Your task to perform on an android device: What is the recent news? Image 0: 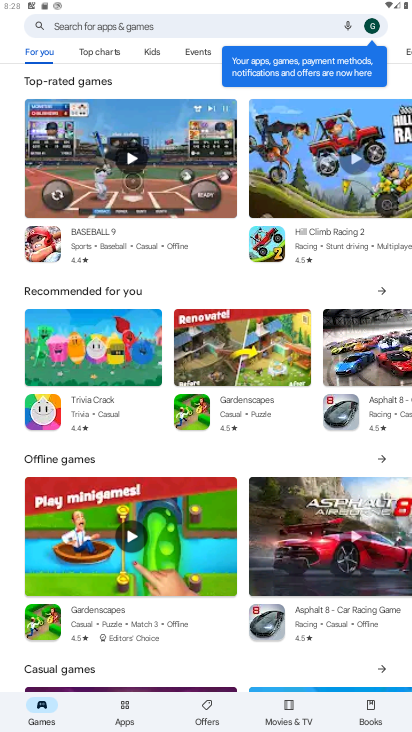
Step 0: press home button
Your task to perform on an android device: What is the recent news? Image 1: 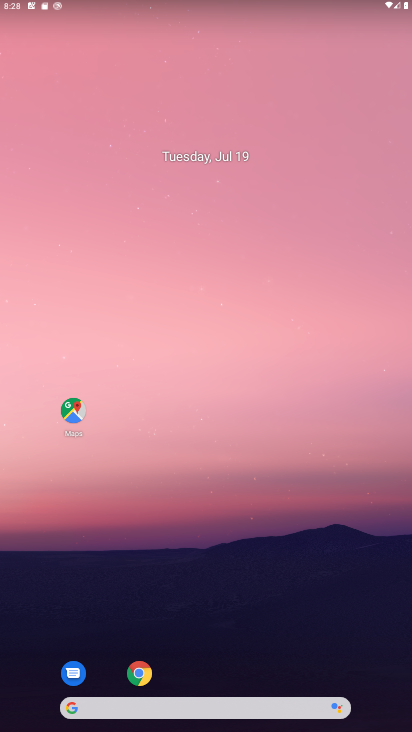
Step 1: task complete